Your task to perform on an android device: Search for seafood restaurants on Google Maps Image 0: 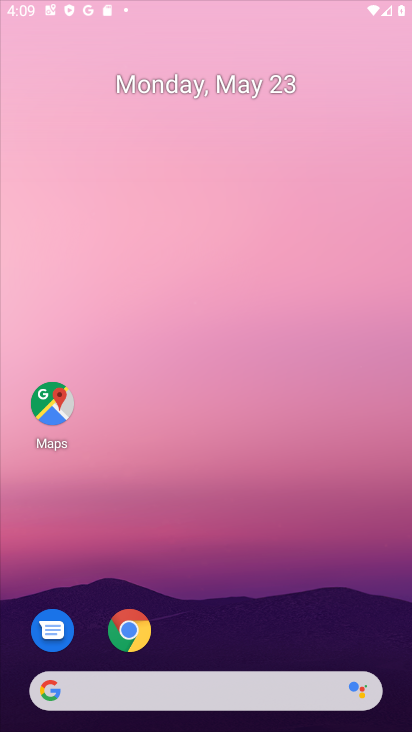
Step 0: drag from (220, 649) to (233, 77)
Your task to perform on an android device: Search for seafood restaurants on Google Maps Image 1: 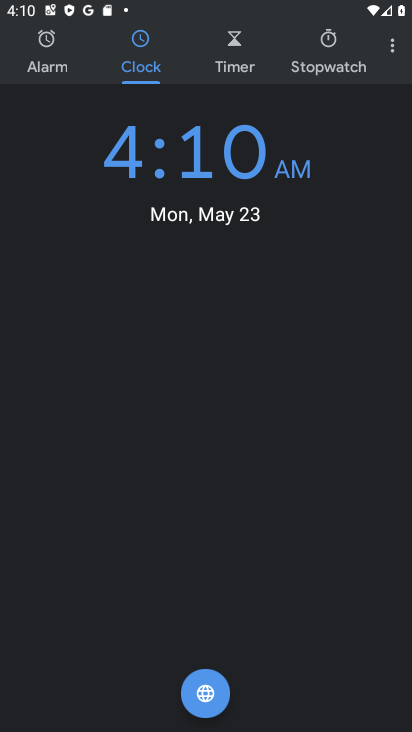
Step 1: press home button
Your task to perform on an android device: Search for seafood restaurants on Google Maps Image 2: 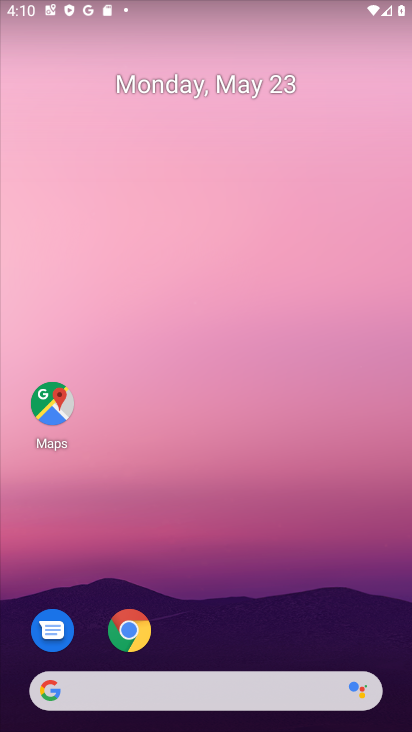
Step 2: click (51, 400)
Your task to perform on an android device: Search for seafood restaurants on Google Maps Image 3: 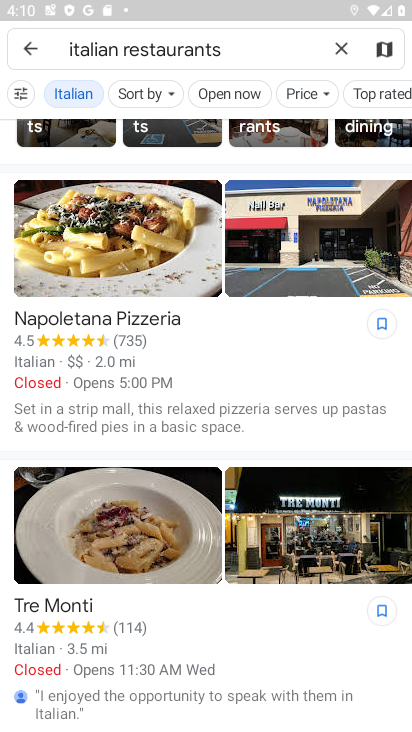
Step 3: click (343, 46)
Your task to perform on an android device: Search for seafood restaurants on Google Maps Image 4: 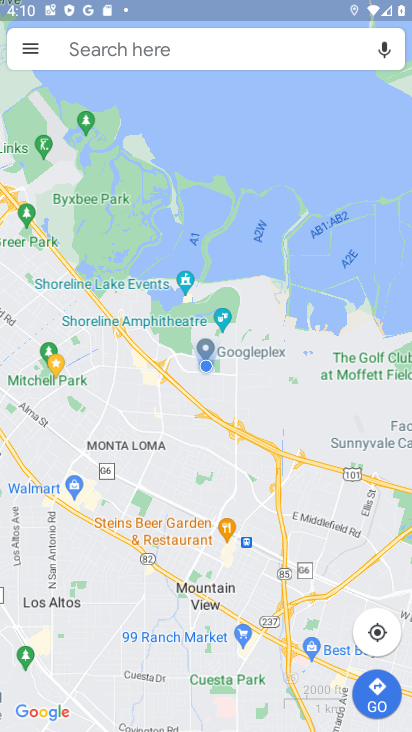
Step 4: click (111, 50)
Your task to perform on an android device: Search for seafood restaurants on Google Maps Image 5: 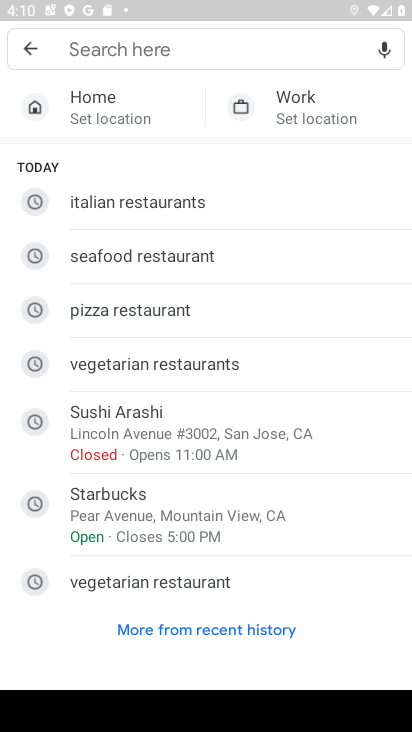
Step 5: click (117, 259)
Your task to perform on an android device: Search for seafood restaurants on Google Maps Image 6: 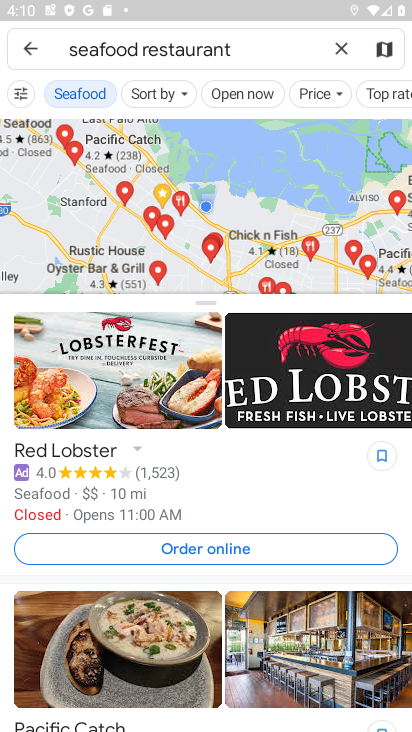
Step 6: task complete